Your task to perform on an android device: Open Yahoo.com Image 0: 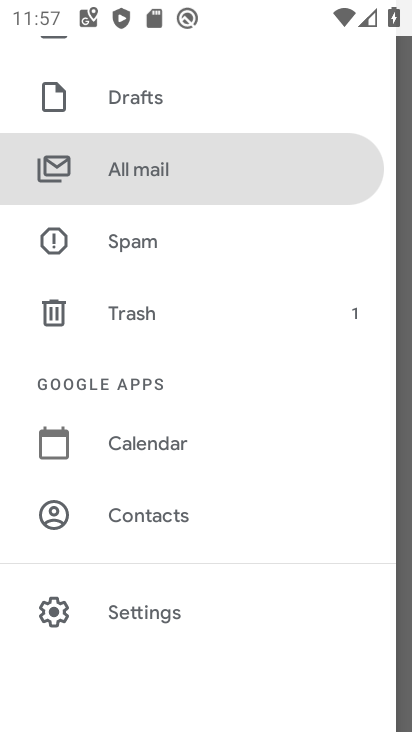
Step 0: press back button
Your task to perform on an android device: Open Yahoo.com Image 1: 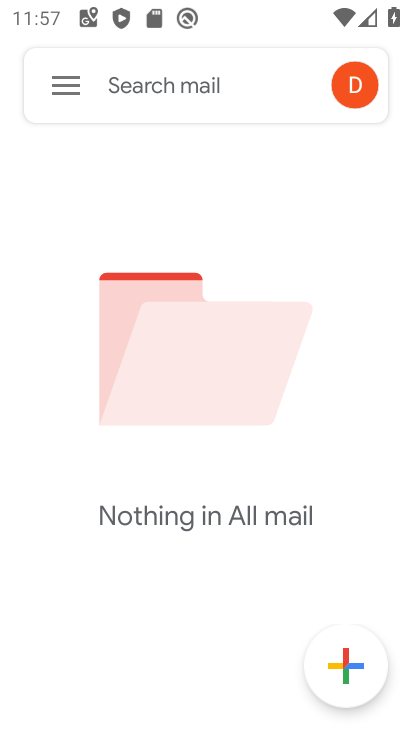
Step 1: press home button
Your task to perform on an android device: Open Yahoo.com Image 2: 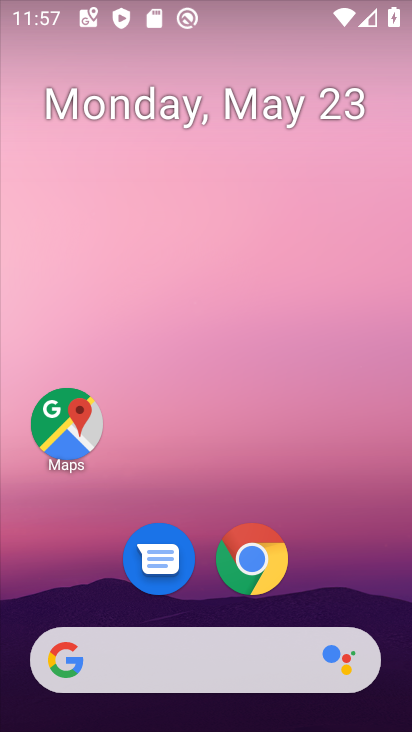
Step 2: press back button
Your task to perform on an android device: Open Yahoo.com Image 3: 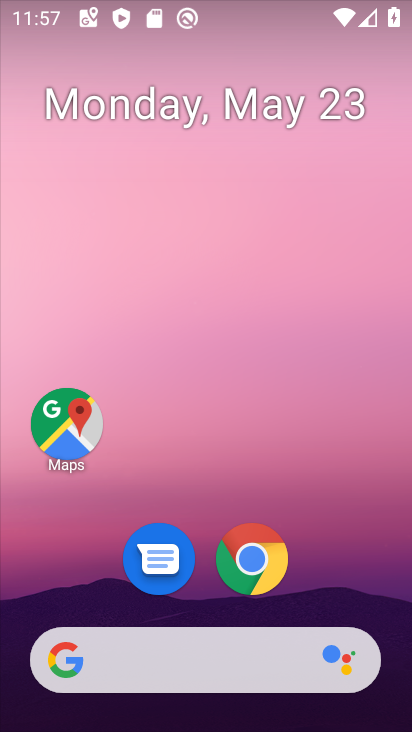
Step 3: drag from (259, 669) to (152, 142)
Your task to perform on an android device: Open Yahoo.com Image 4: 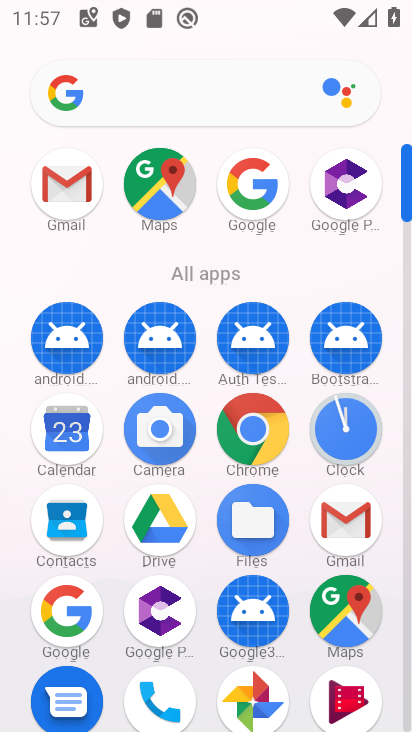
Step 4: click (245, 451)
Your task to perform on an android device: Open Yahoo.com Image 5: 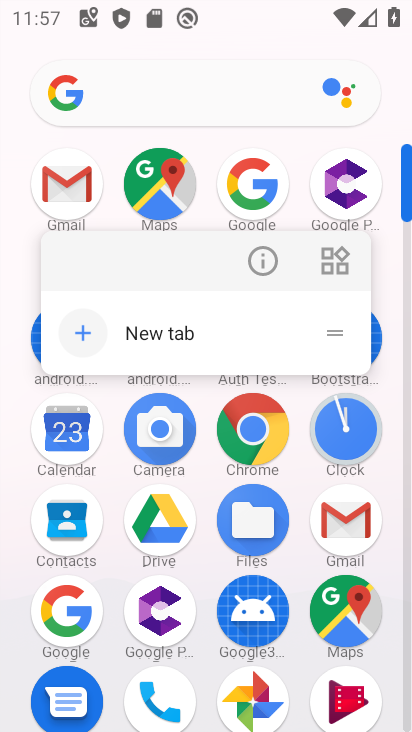
Step 5: click (236, 446)
Your task to perform on an android device: Open Yahoo.com Image 6: 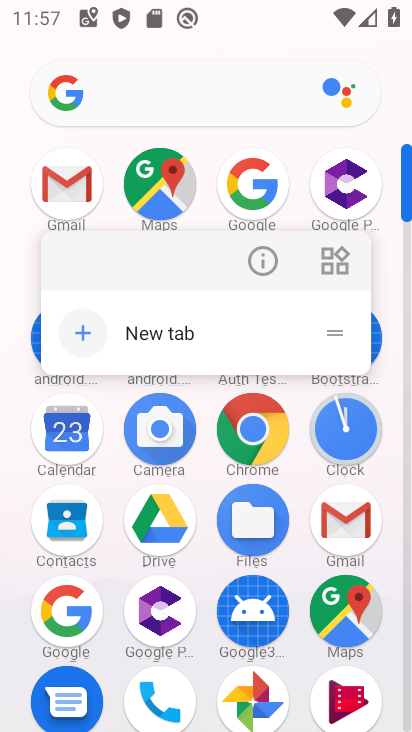
Step 6: click (249, 426)
Your task to perform on an android device: Open Yahoo.com Image 7: 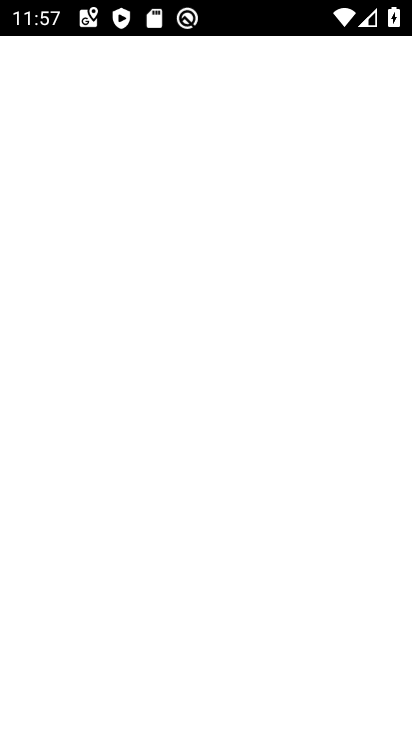
Step 7: click (251, 426)
Your task to perform on an android device: Open Yahoo.com Image 8: 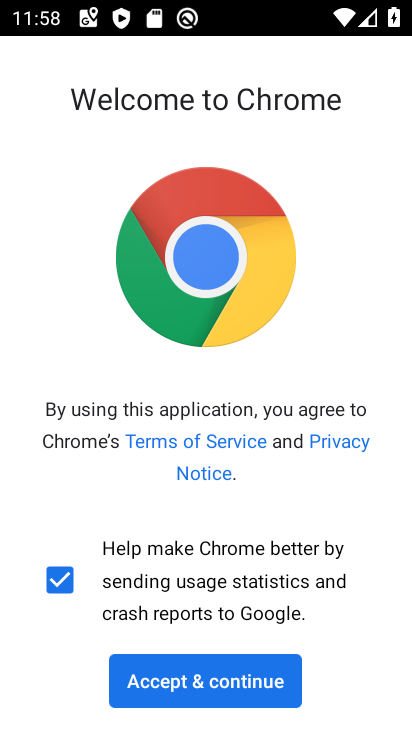
Step 8: click (231, 680)
Your task to perform on an android device: Open Yahoo.com Image 9: 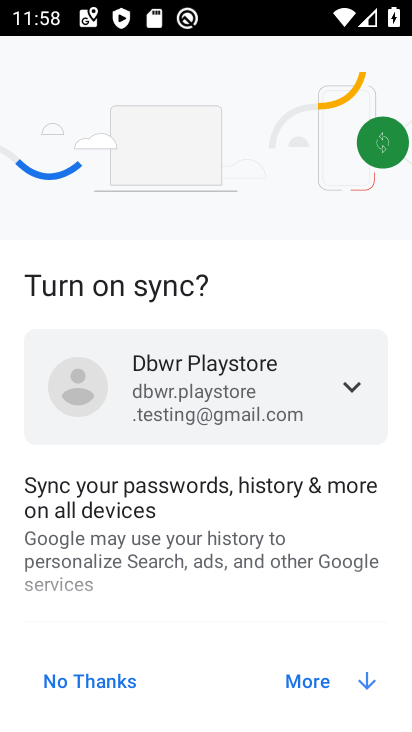
Step 9: click (224, 685)
Your task to perform on an android device: Open Yahoo.com Image 10: 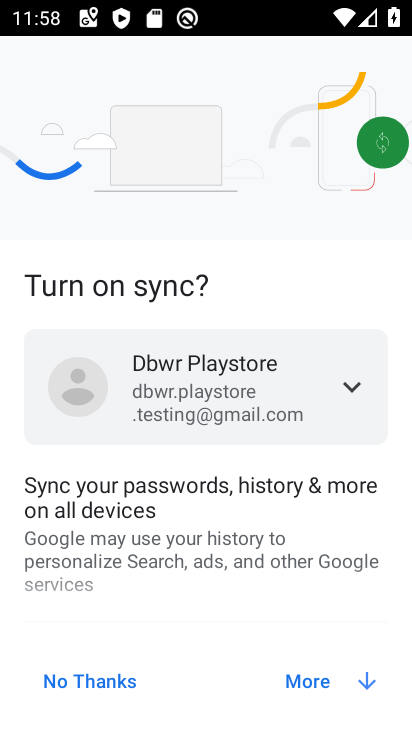
Step 10: click (314, 673)
Your task to perform on an android device: Open Yahoo.com Image 11: 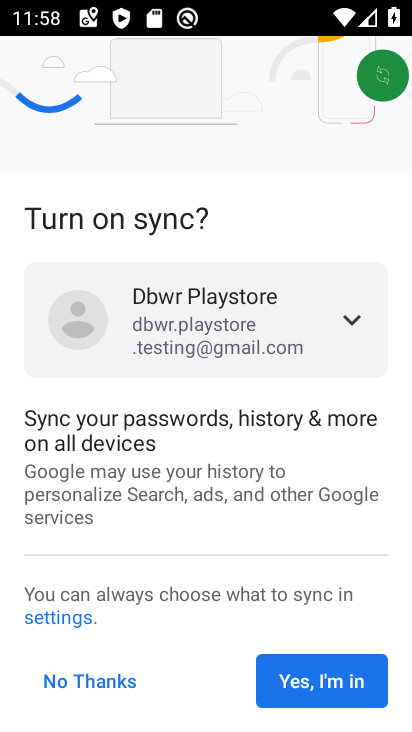
Step 11: click (306, 681)
Your task to perform on an android device: Open Yahoo.com Image 12: 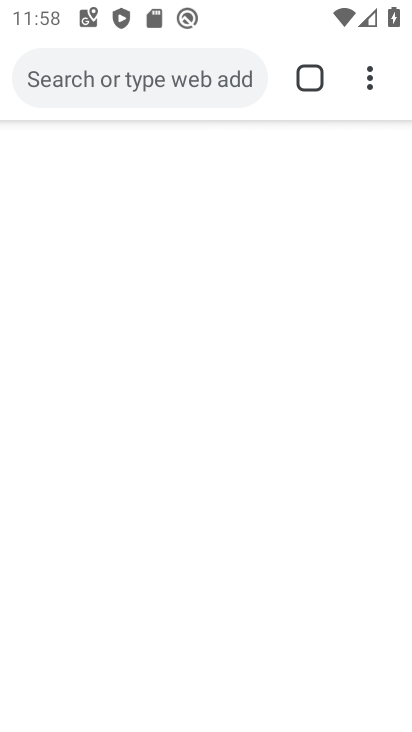
Step 12: click (313, 678)
Your task to perform on an android device: Open Yahoo.com Image 13: 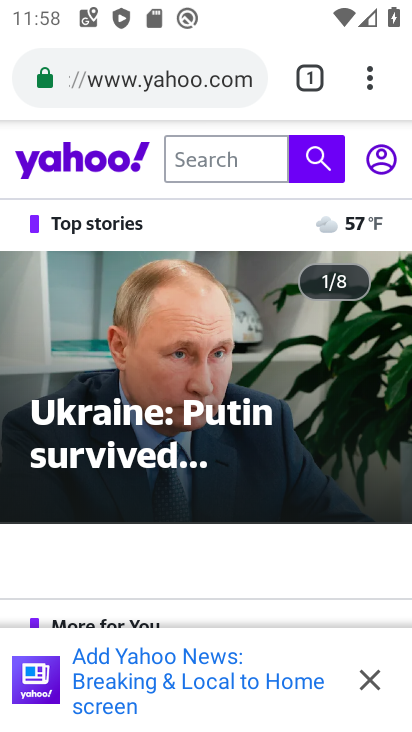
Step 13: task complete